Your task to perform on an android device: Open Yahoo.com Image 0: 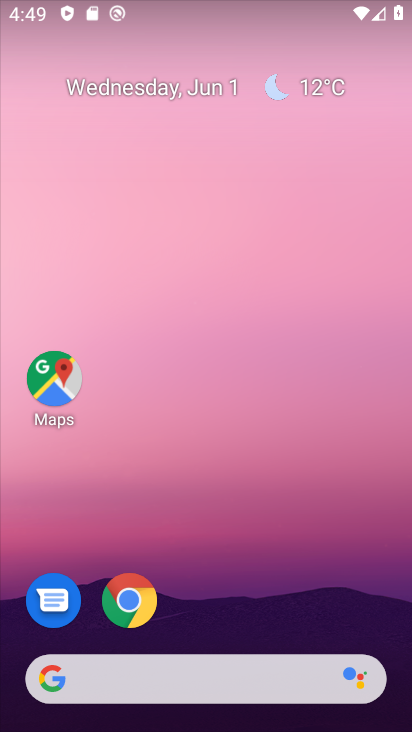
Step 0: click (130, 598)
Your task to perform on an android device: Open Yahoo.com Image 1: 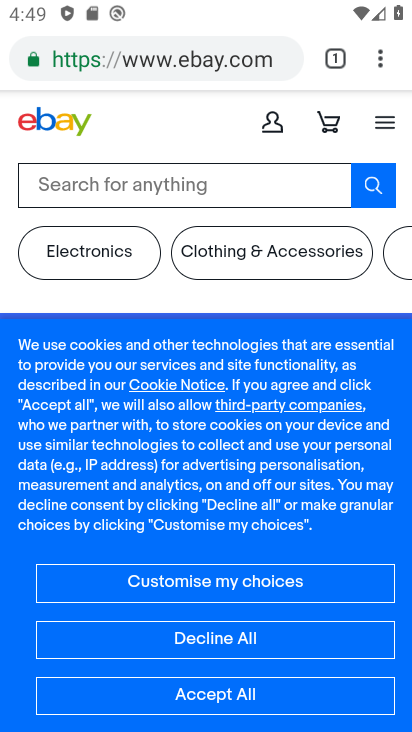
Step 1: click (260, 69)
Your task to perform on an android device: Open Yahoo.com Image 2: 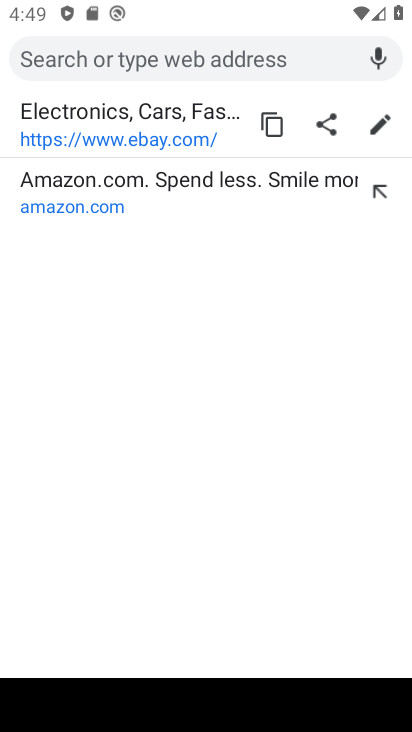
Step 2: type "Yahoo.com"
Your task to perform on an android device: Open Yahoo.com Image 3: 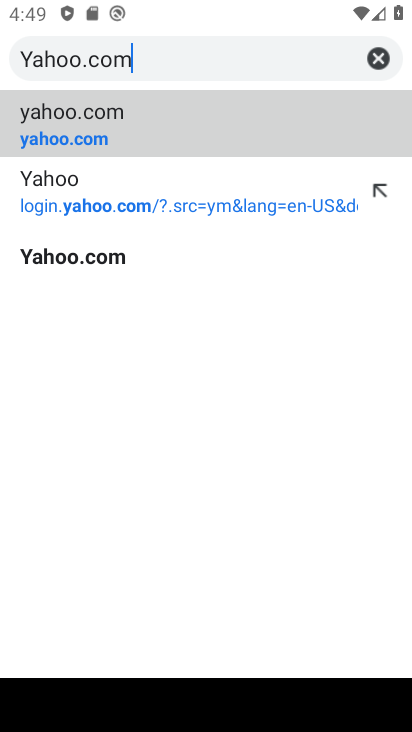
Step 3: click (98, 260)
Your task to perform on an android device: Open Yahoo.com Image 4: 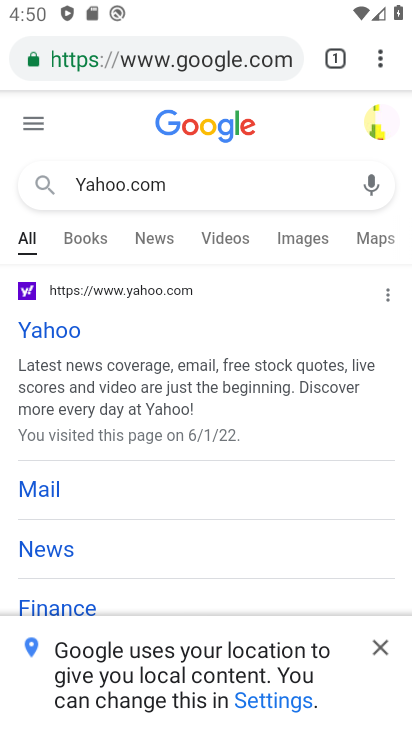
Step 4: click (65, 330)
Your task to perform on an android device: Open Yahoo.com Image 5: 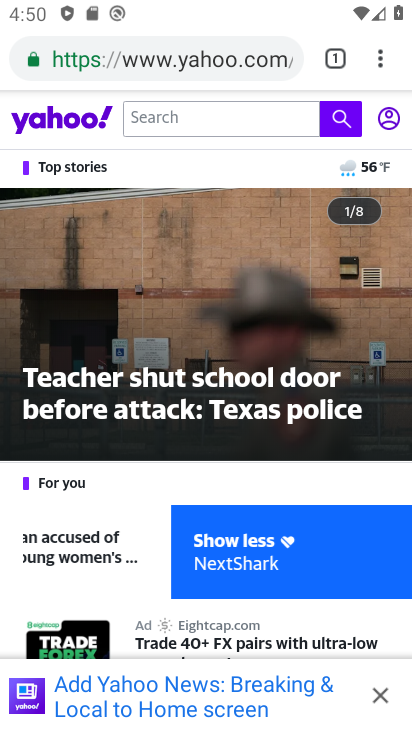
Step 5: task complete